Your task to perform on an android device: What's on my calendar today? Image 0: 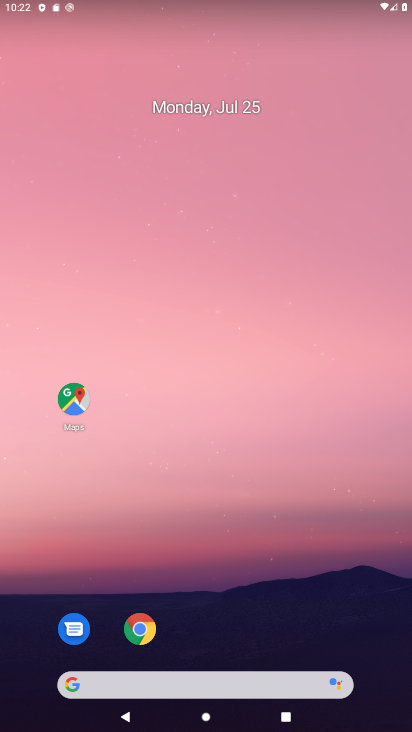
Step 0: drag from (308, 630) to (329, 40)
Your task to perform on an android device: What's on my calendar today? Image 1: 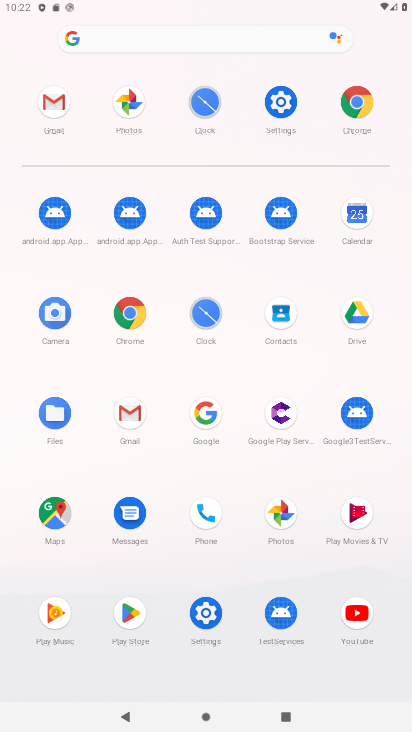
Step 1: click (358, 219)
Your task to perform on an android device: What's on my calendar today? Image 2: 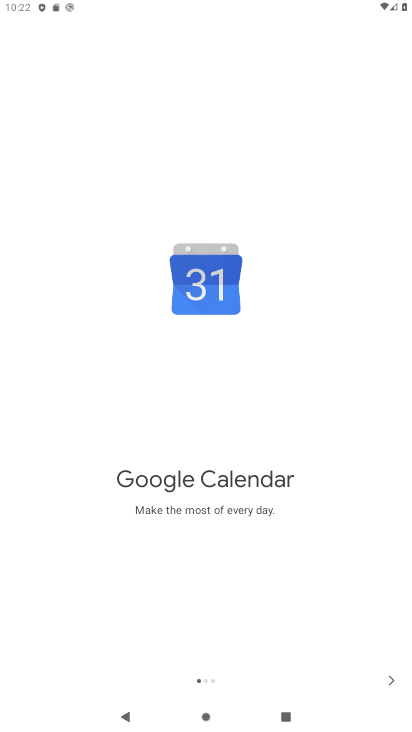
Step 2: click (395, 684)
Your task to perform on an android device: What's on my calendar today? Image 3: 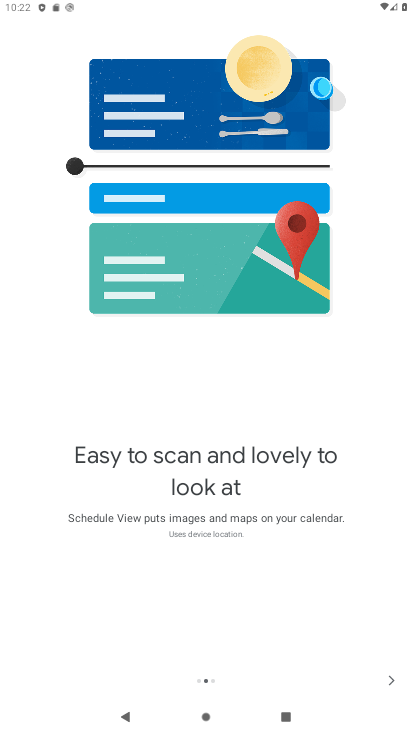
Step 3: click (395, 684)
Your task to perform on an android device: What's on my calendar today? Image 4: 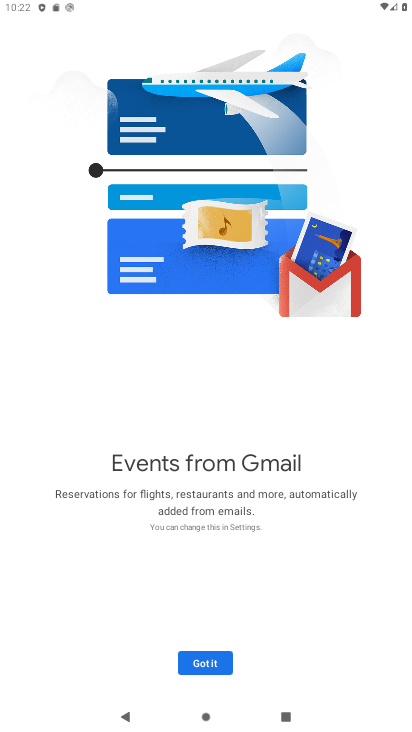
Step 4: click (214, 666)
Your task to perform on an android device: What's on my calendar today? Image 5: 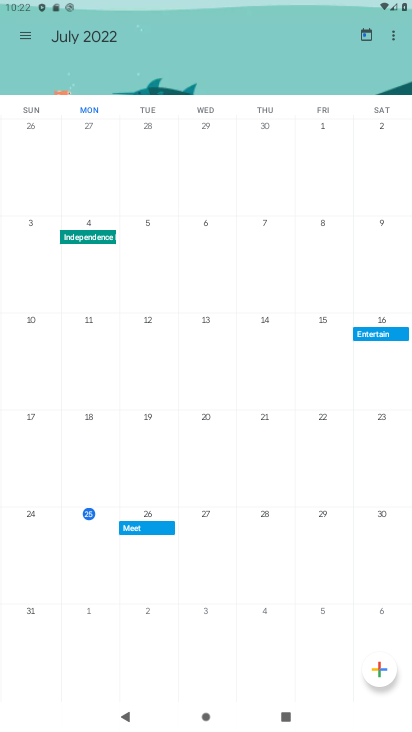
Step 5: click (26, 34)
Your task to perform on an android device: What's on my calendar today? Image 6: 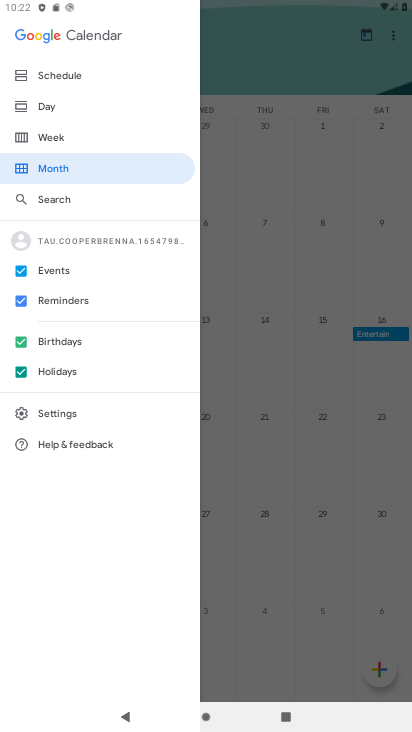
Step 6: click (216, 66)
Your task to perform on an android device: What's on my calendar today? Image 7: 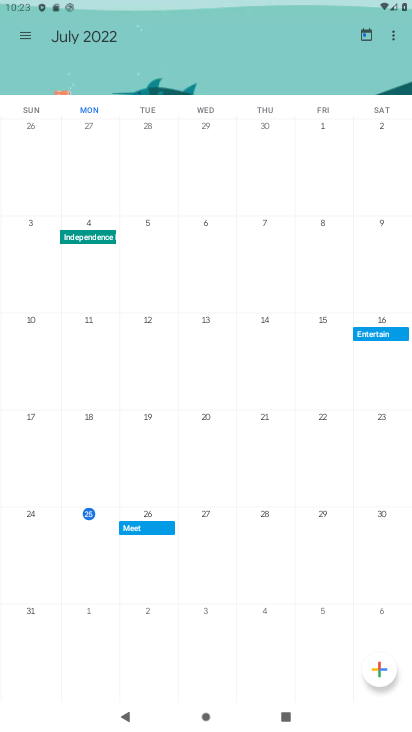
Step 7: click (86, 517)
Your task to perform on an android device: What's on my calendar today? Image 8: 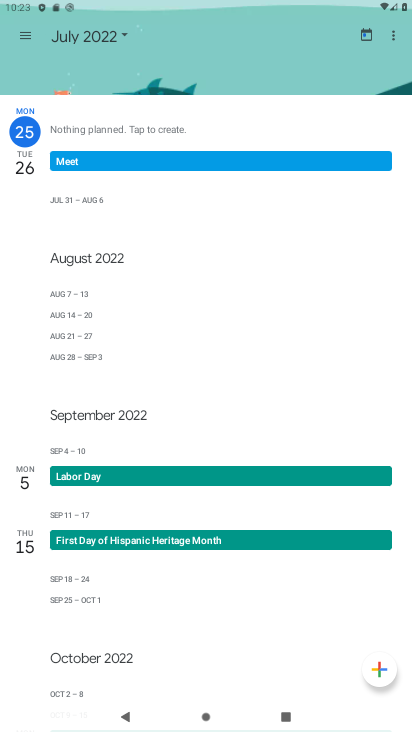
Step 8: click (123, 130)
Your task to perform on an android device: What's on my calendar today? Image 9: 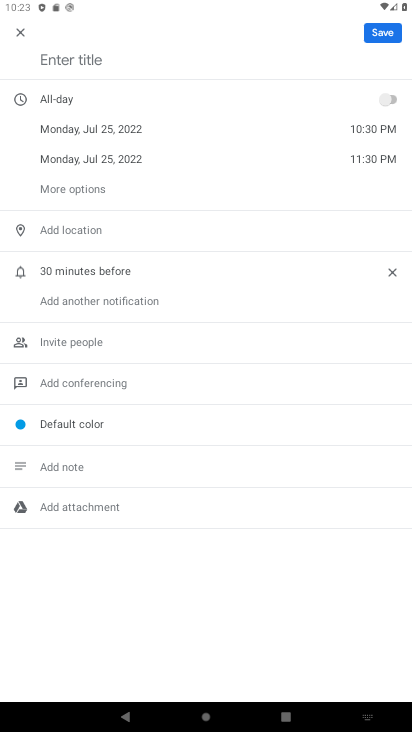
Step 9: task complete